Your task to perform on an android device: Open display settings Image 0: 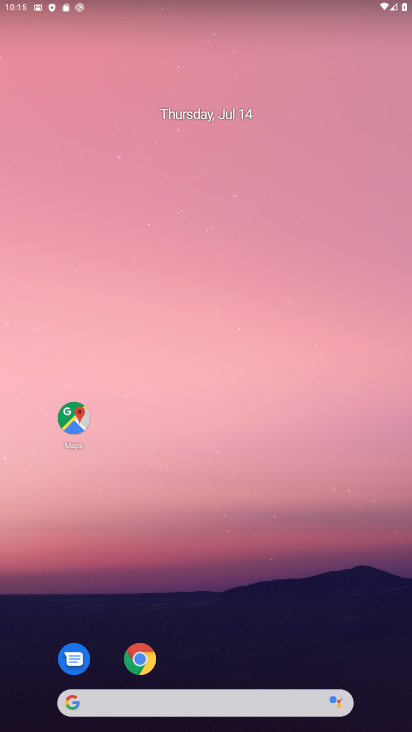
Step 0: drag from (199, 679) to (205, 441)
Your task to perform on an android device: Open display settings Image 1: 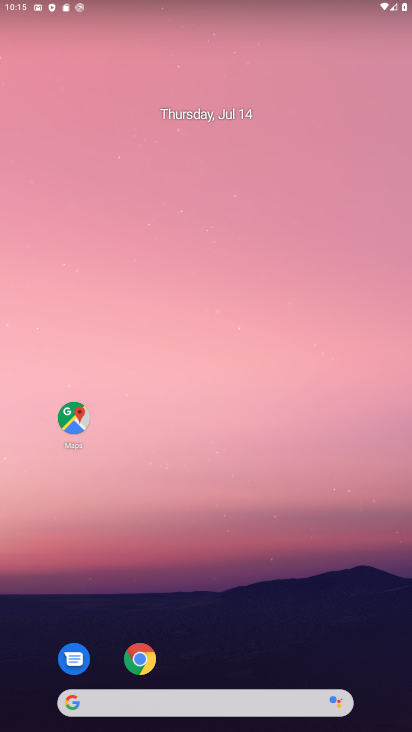
Step 1: drag from (197, 679) to (271, 100)
Your task to perform on an android device: Open display settings Image 2: 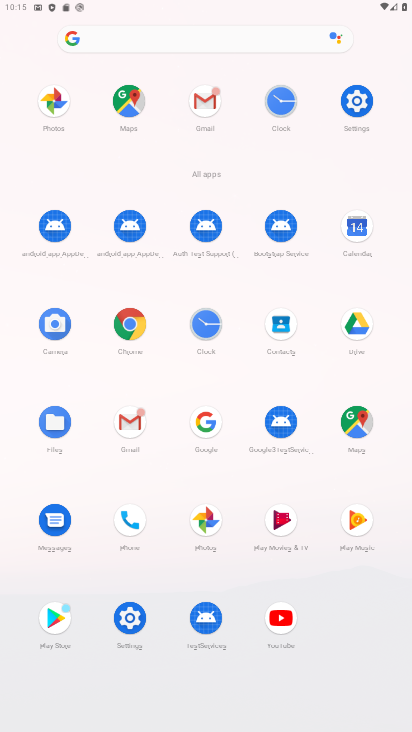
Step 2: click (124, 615)
Your task to perform on an android device: Open display settings Image 3: 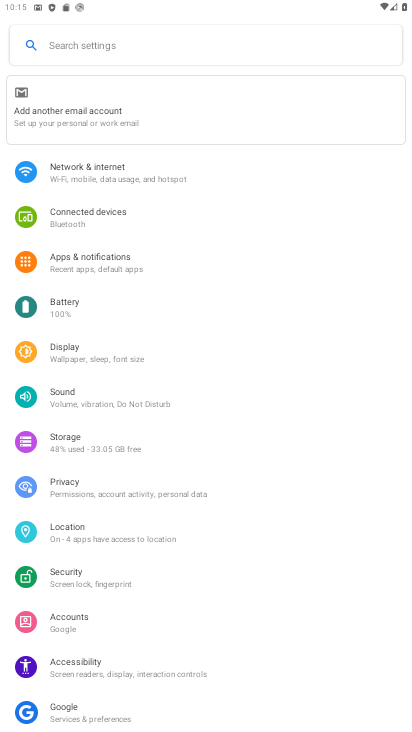
Step 3: click (98, 356)
Your task to perform on an android device: Open display settings Image 4: 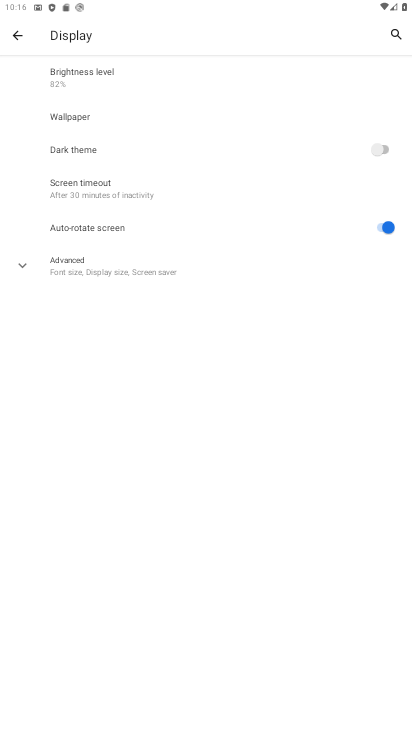
Step 4: task complete